Your task to perform on an android device: Show me the alarms in the clock app Image 0: 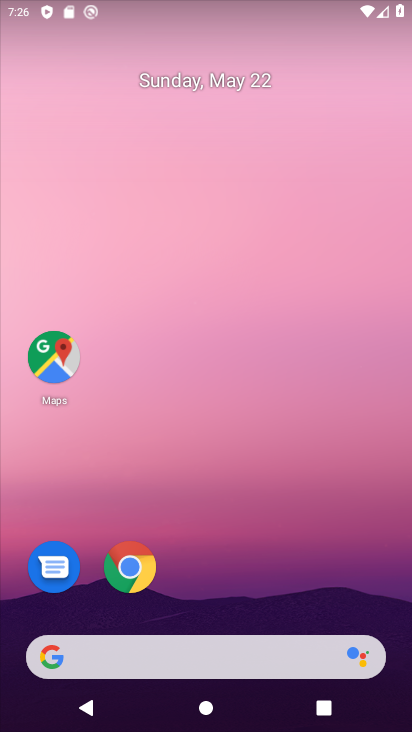
Step 0: drag from (234, 576) to (354, 103)
Your task to perform on an android device: Show me the alarms in the clock app Image 1: 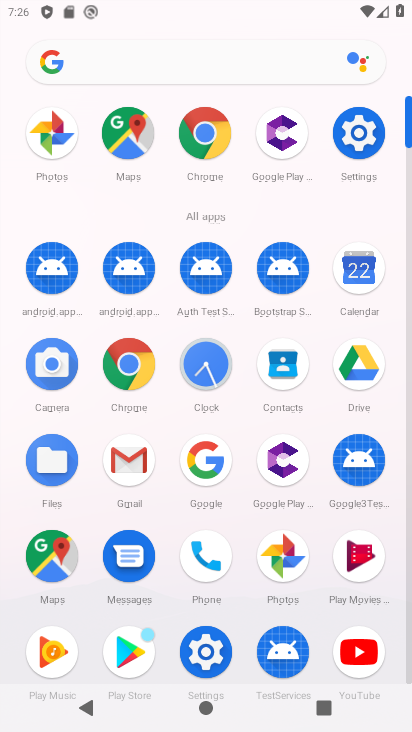
Step 1: click (220, 359)
Your task to perform on an android device: Show me the alarms in the clock app Image 2: 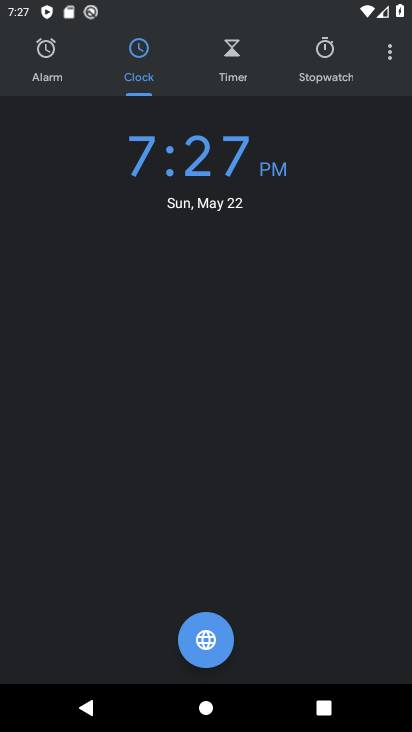
Step 2: click (39, 74)
Your task to perform on an android device: Show me the alarms in the clock app Image 3: 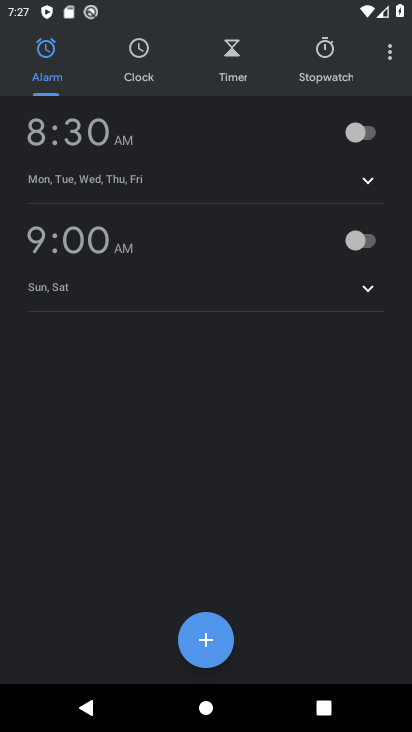
Step 3: task complete